Your task to perform on an android device: change keyboard looks Image 0: 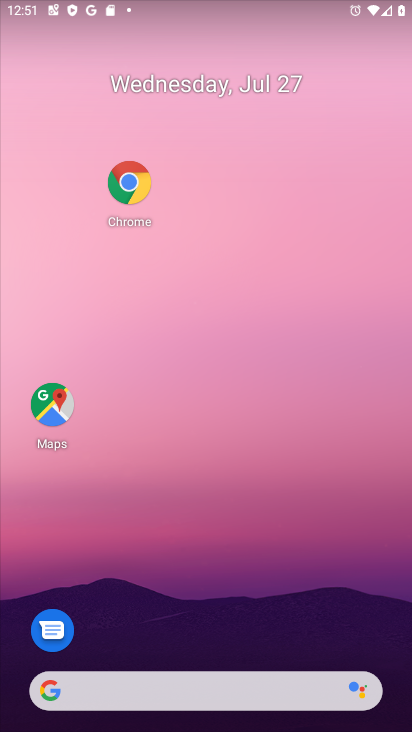
Step 0: drag from (284, 727) to (187, 233)
Your task to perform on an android device: change keyboard looks Image 1: 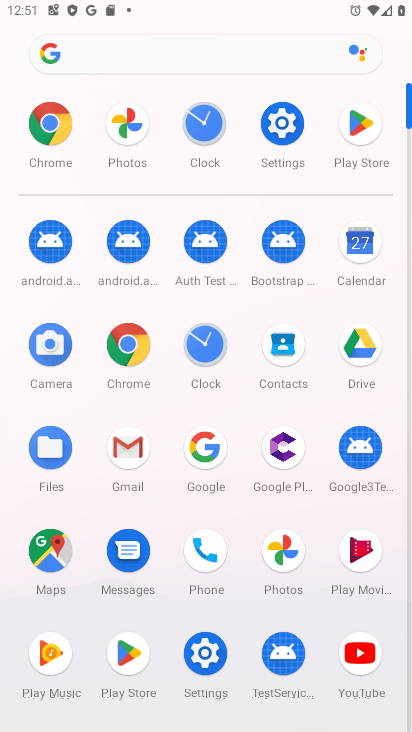
Step 1: click (287, 131)
Your task to perform on an android device: change keyboard looks Image 2: 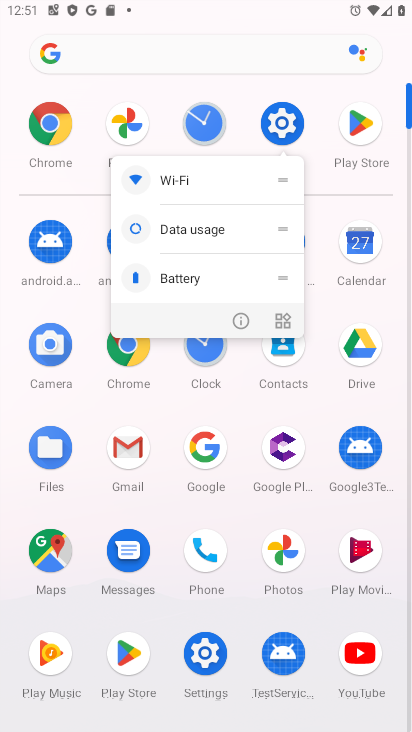
Step 2: click (290, 115)
Your task to perform on an android device: change keyboard looks Image 3: 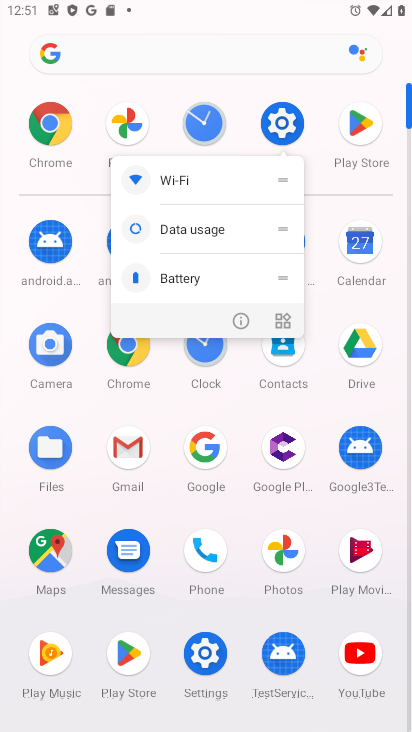
Step 3: click (290, 115)
Your task to perform on an android device: change keyboard looks Image 4: 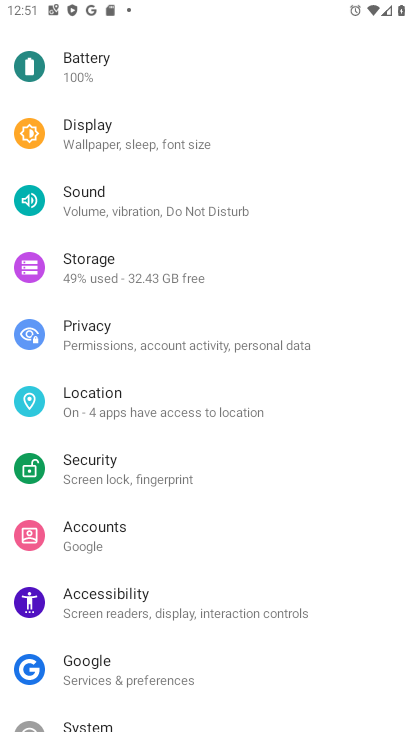
Step 4: drag from (329, 671) to (236, 3)
Your task to perform on an android device: change keyboard looks Image 5: 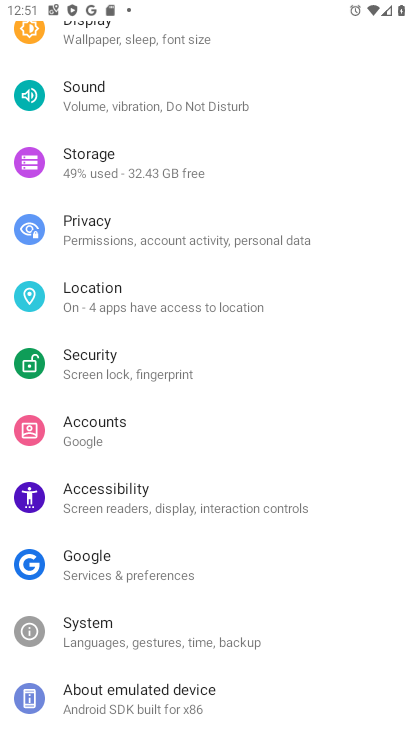
Step 5: click (203, 644)
Your task to perform on an android device: change keyboard looks Image 6: 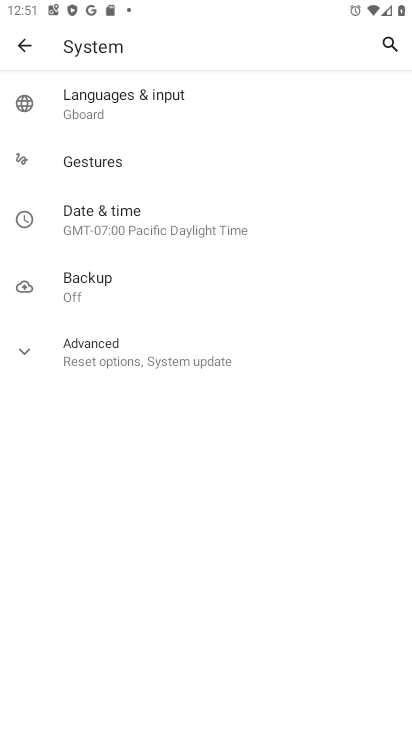
Step 6: click (161, 89)
Your task to perform on an android device: change keyboard looks Image 7: 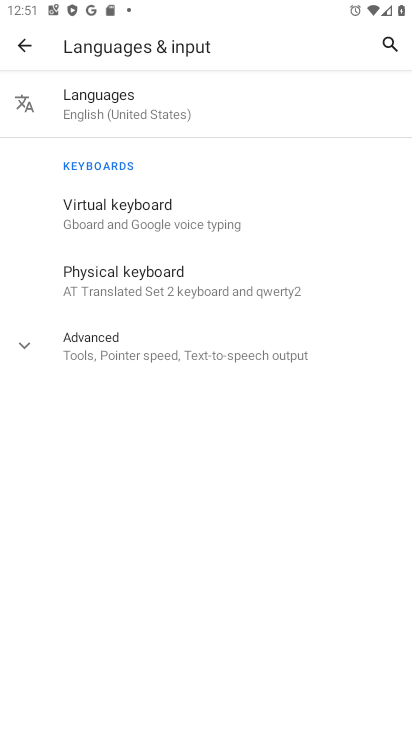
Step 7: click (159, 207)
Your task to perform on an android device: change keyboard looks Image 8: 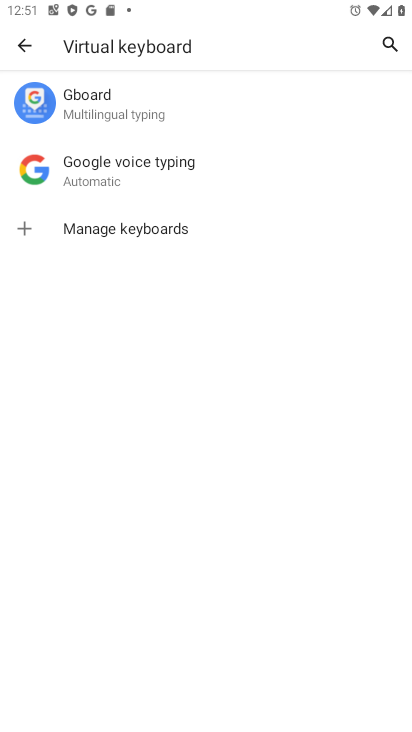
Step 8: click (161, 102)
Your task to perform on an android device: change keyboard looks Image 9: 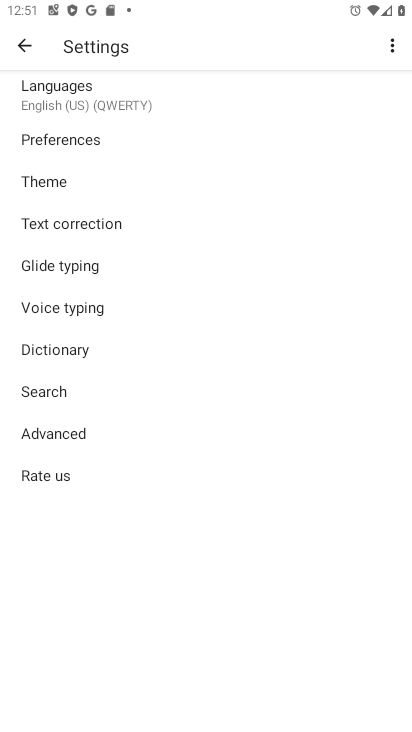
Step 9: click (59, 182)
Your task to perform on an android device: change keyboard looks Image 10: 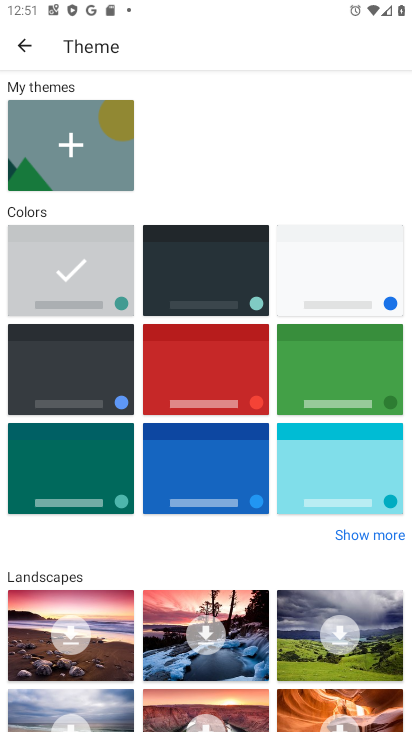
Step 10: click (196, 363)
Your task to perform on an android device: change keyboard looks Image 11: 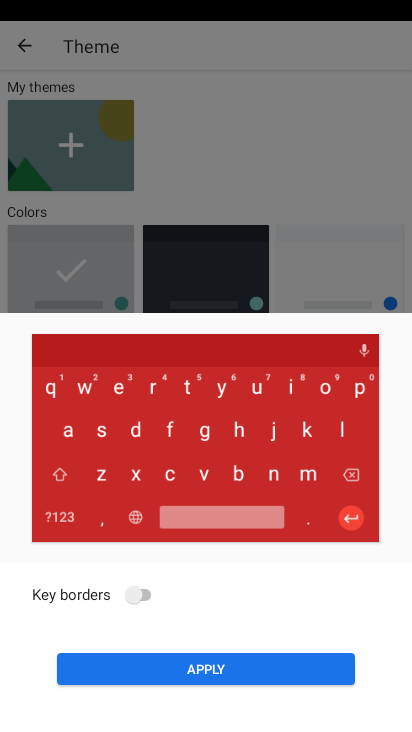
Step 11: click (203, 668)
Your task to perform on an android device: change keyboard looks Image 12: 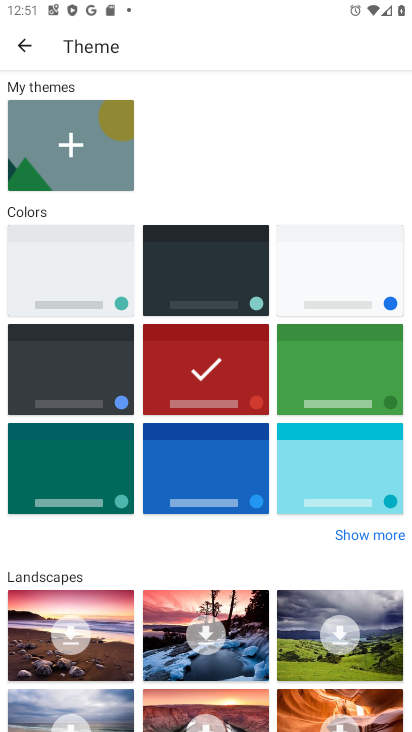
Step 12: task complete